Your task to perform on an android device: clear history in the chrome app Image 0: 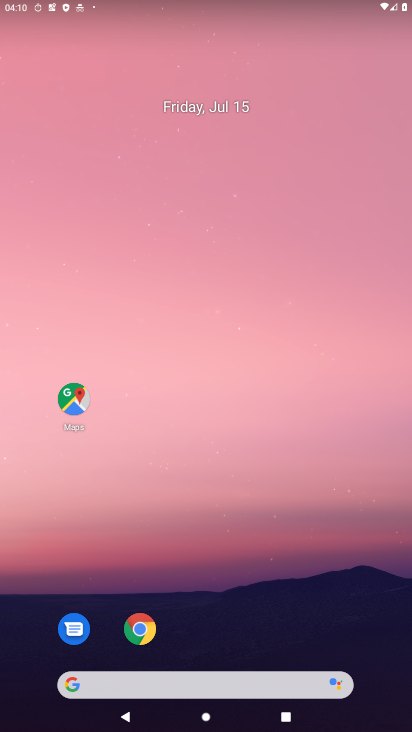
Step 0: drag from (222, 644) to (265, 98)
Your task to perform on an android device: clear history in the chrome app Image 1: 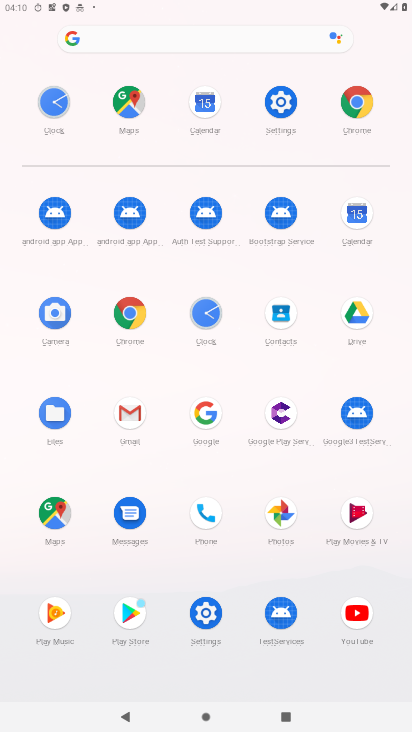
Step 1: click (125, 321)
Your task to perform on an android device: clear history in the chrome app Image 2: 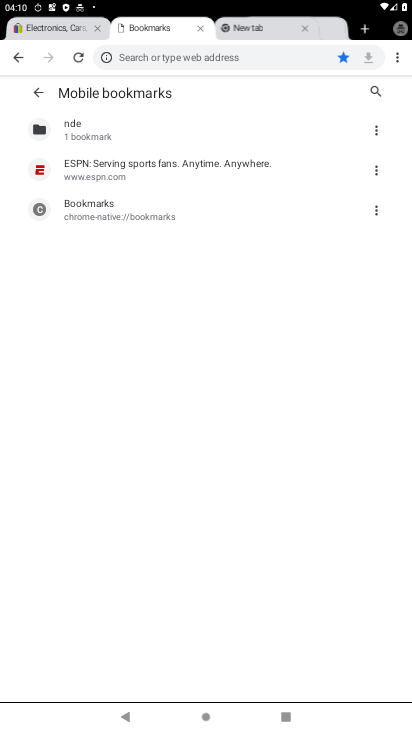
Step 2: drag from (394, 55) to (293, 188)
Your task to perform on an android device: clear history in the chrome app Image 3: 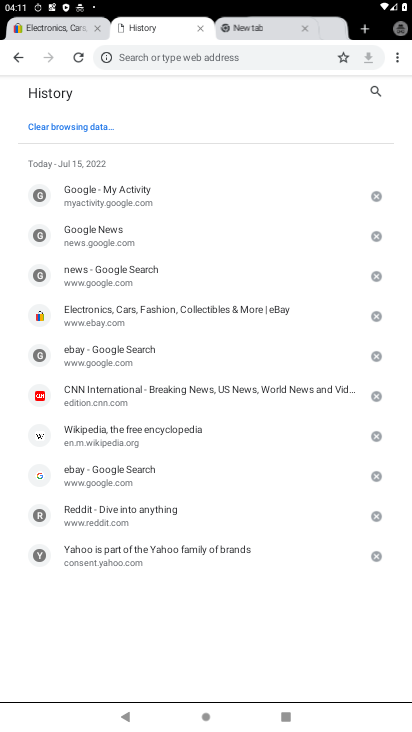
Step 3: click (37, 194)
Your task to perform on an android device: clear history in the chrome app Image 4: 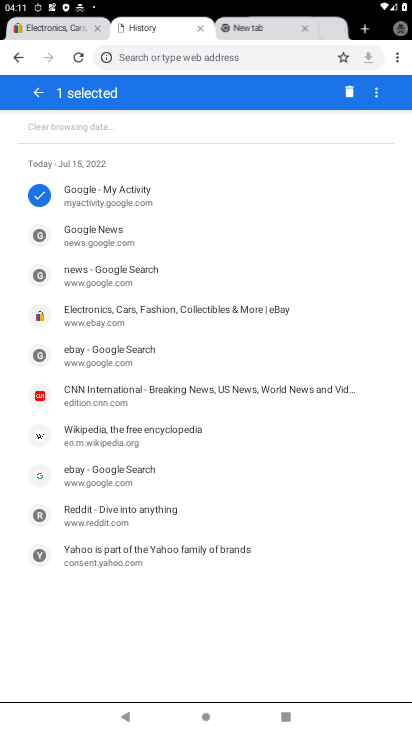
Step 4: click (41, 222)
Your task to perform on an android device: clear history in the chrome app Image 5: 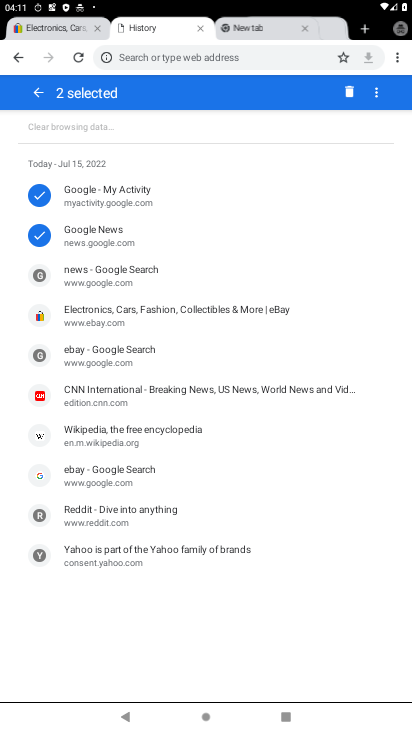
Step 5: click (41, 278)
Your task to perform on an android device: clear history in the chrome app Image 6: 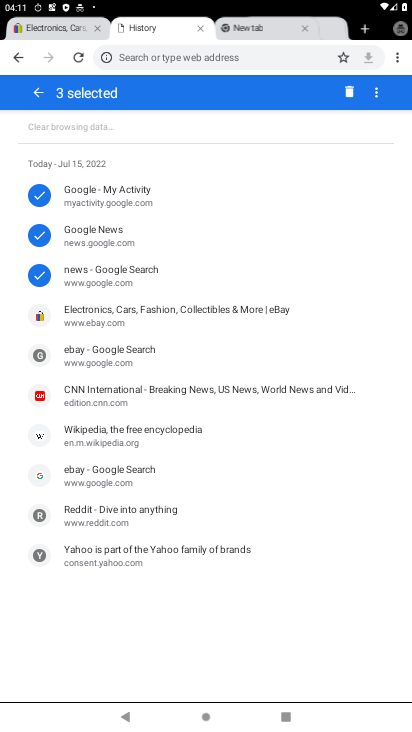
Step 6: click (41, 318)
Your task to perform on an android device: clear history in the chrome app Image 7: 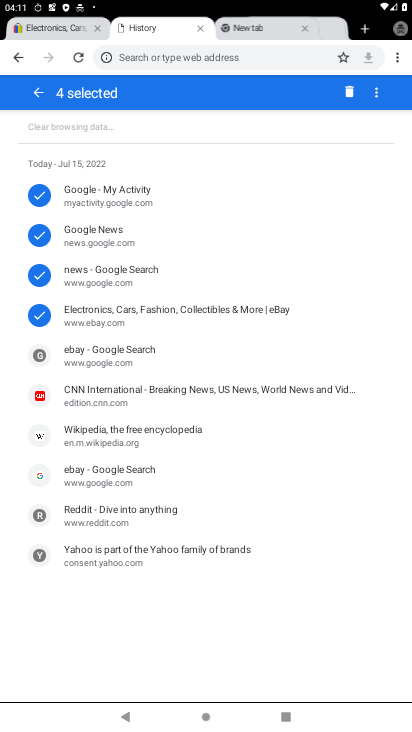
Step 7: click (34, 352)
Your task to perform on an android device: clear history in the chrome app Image 8: 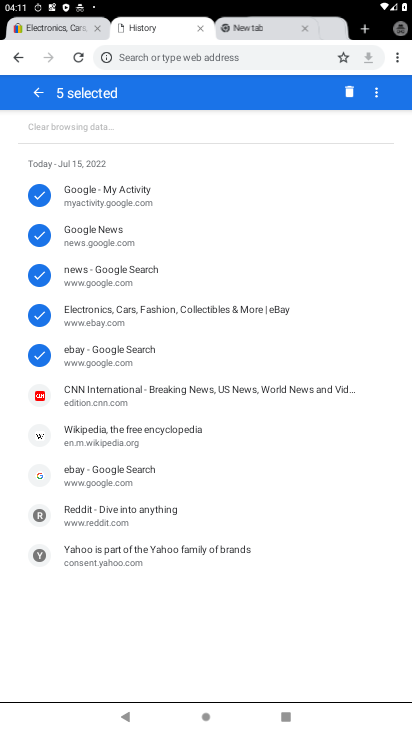
Step 8: click (45, 390)
Your task to perform on an android device: clear history in the chrome app Image 9: 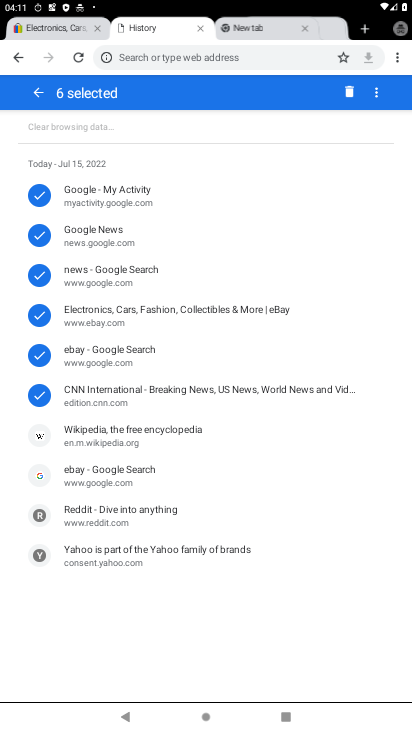
Step 9: click (43, 436)
Your task to perform on an android device: clear history in the chrome app Image 10: 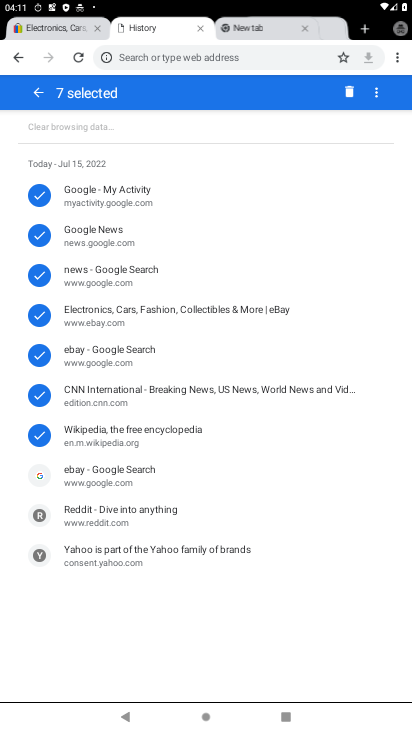
Step 10: click (33, 474)
Your task to perform on an android device: clear history in the chrome app Image 11: 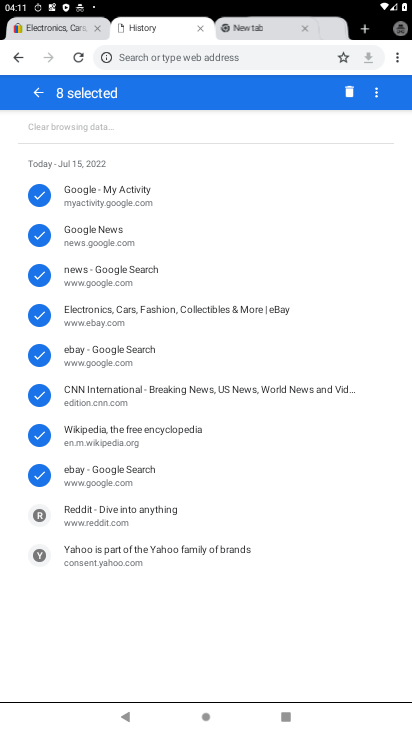
Step 11: click (39, 514)
Your task to perform on an android device: clear history in the chrome app Image 12: 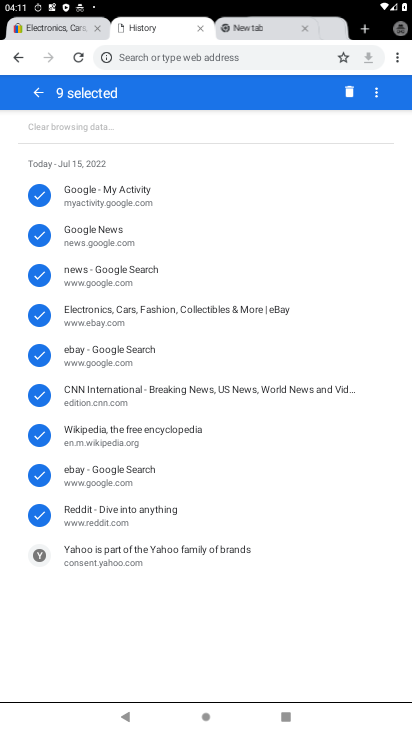
Step 12: click (36, 550)
Your task to perform on an android device: clear history in the chrome app Image 13: 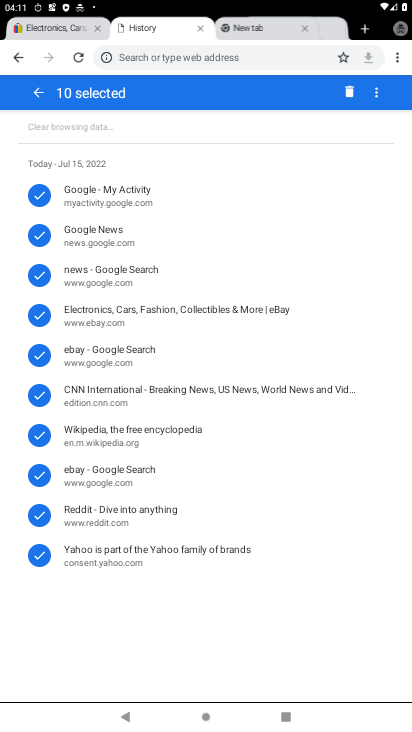
Step 13: click (347, 80)
Your task to perform on an android device: clear history in the chrome app Image 14: 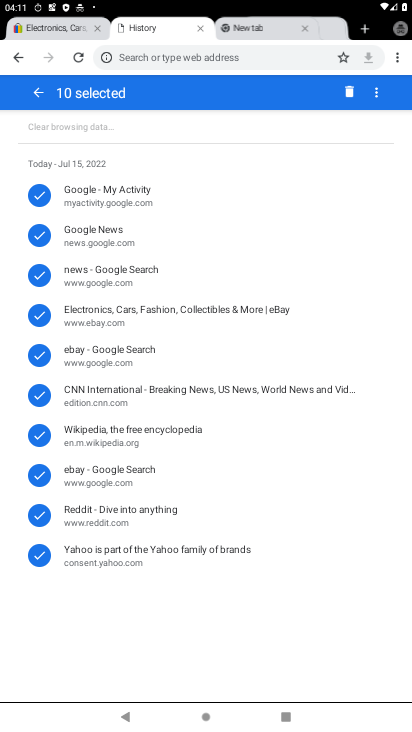
Step 14: click (346, 90)
Your task to perform on an android device: clear history in the chrome app Image 15: 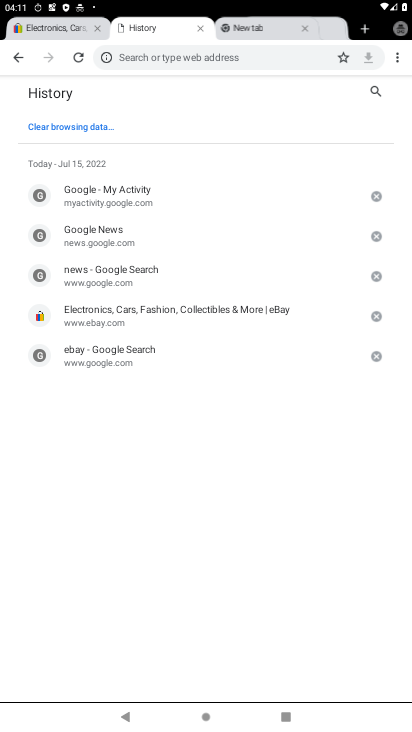
Step 15: click (44, 196)
Your task to perform on an android device: clear history in the chrome app Image 16: 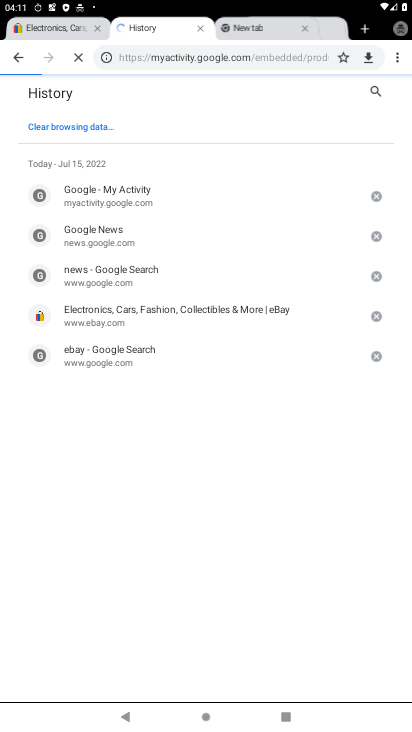
Step 16: click (37, 236)
Your task to perform on an android device: clear history in the chrome app Image 17: 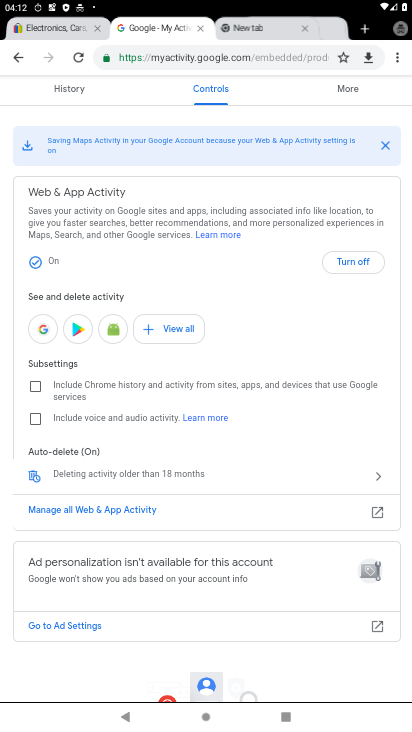
Step 17: click (395, 58)
Your task to perform on an android device: clear history in the chrome app Image 18: 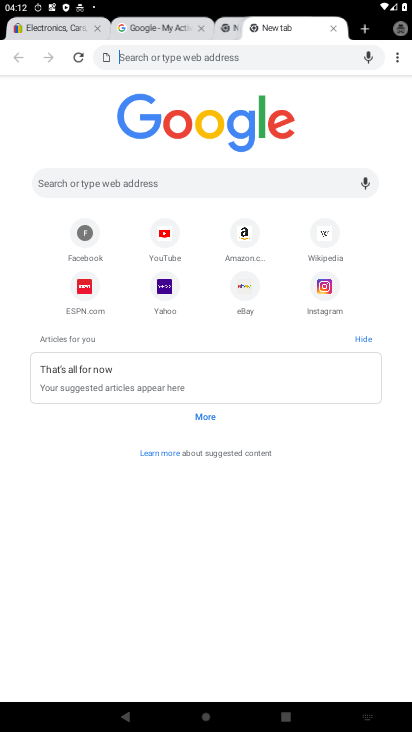
Step 18: drag from (399, 53) to (290, 185)
Your task to perform on an android device: clear history in the chrome app Image 19: 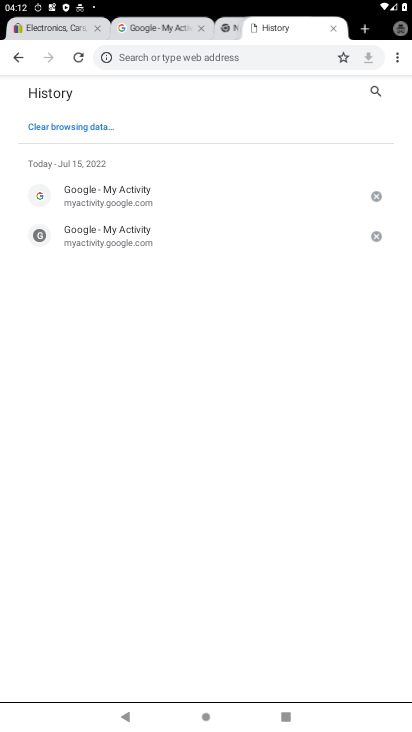
Step 19: click (41, 190)
Your task to perform on an android device: clear history in the chrome app Image 20: 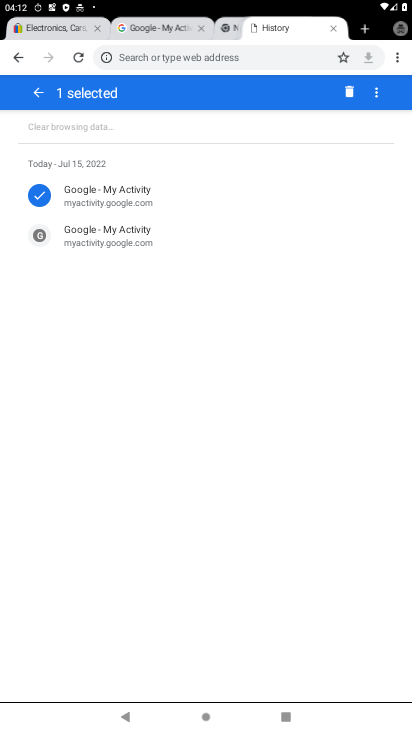
Step 20: click (36, 233)
Your task to perform on an android device: clear history in the chrome app Image 21: 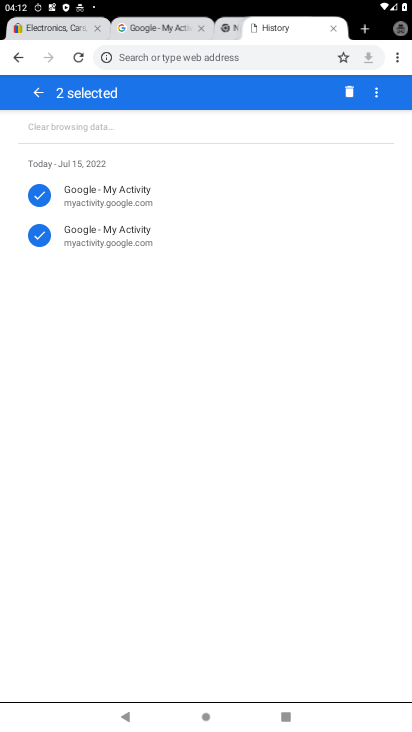
Step 21: click (342, 95)
Your task to perform on an android device: clear history in the chrome app Image 22: 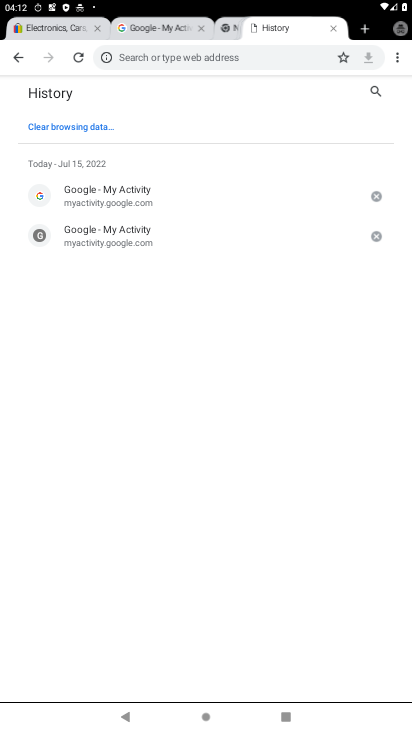
Step 22: task complete